Your task to perform on an android device: change keyboard looks Image 0: 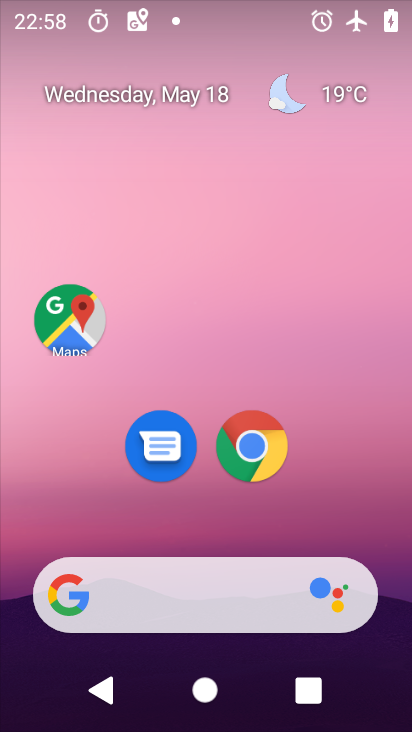
Step 0: press home button
Your task to perform on an android device: change keyboard looks Image 1: 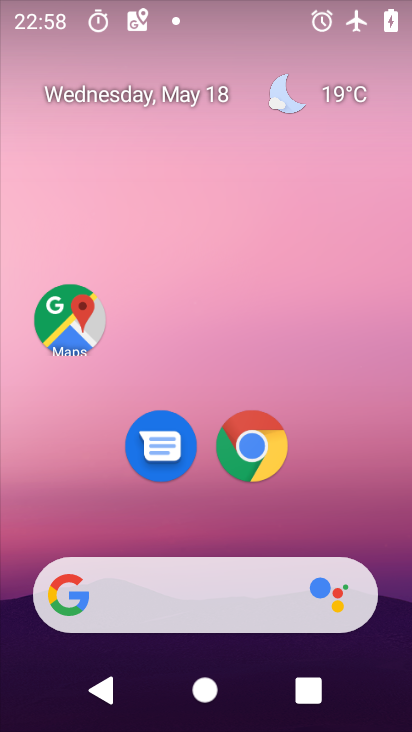
Step 1: drag from (176, 596) to (282, 97)
Your task to perform on an android device: change keyboard looks Image 2: 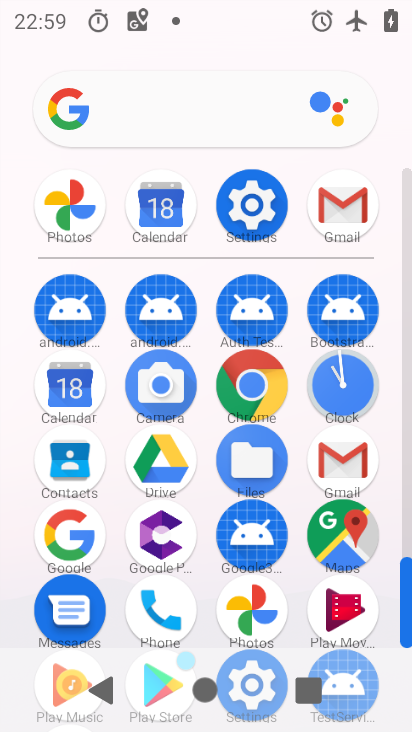
Step 2: click (239, 192)
Your task to perform on an android device: change keyboard looks Image 3: 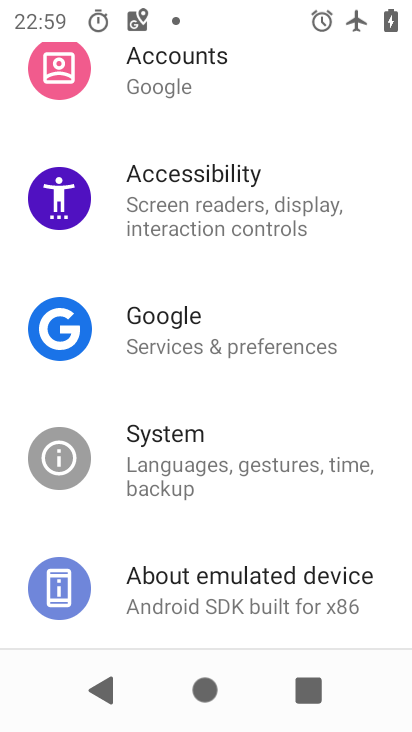
Step 3: click (159, 453)
Your task to perform on an android device: change keyboard looks Image 4: 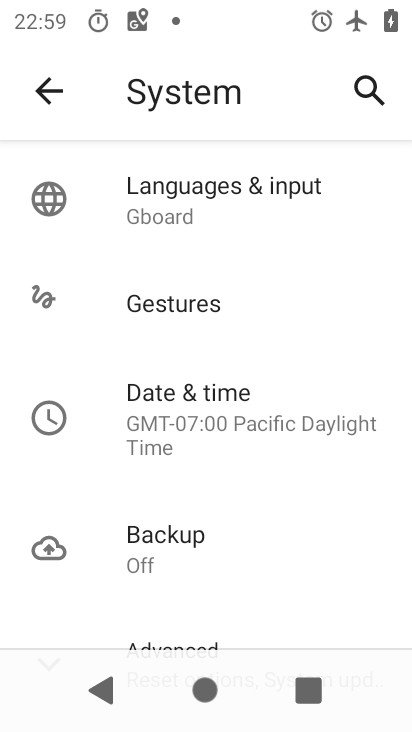
Step 4: click (194, 209)
Your task to perform on an android device: change keyboard looks Image 5: 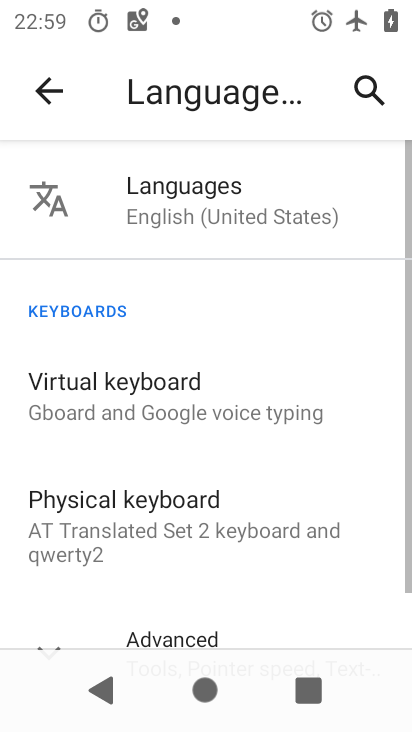
Step 5: click (146, 394)
Your task to perform on an android device: change keyboard looks Image 6: 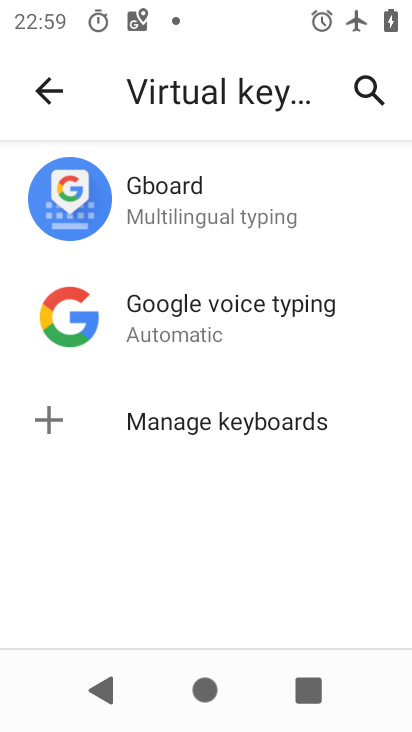
Step 6: click (191, 203)
Your task to perform on an android device: change keyboard looks Image 7: 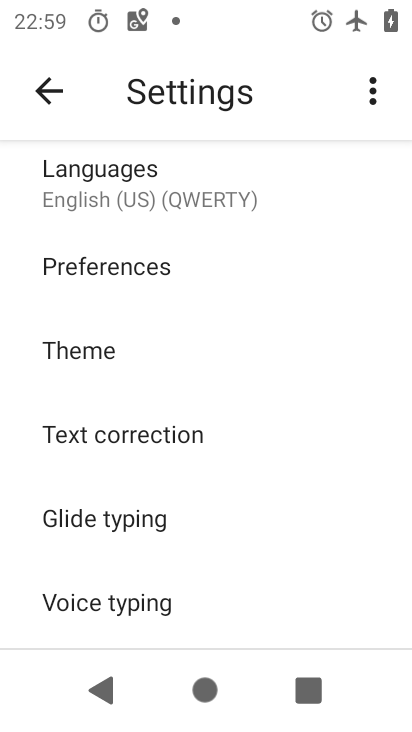
Step 7: click (98, 336)
Your task to perform on an android device: change keyboard looks Image 8: 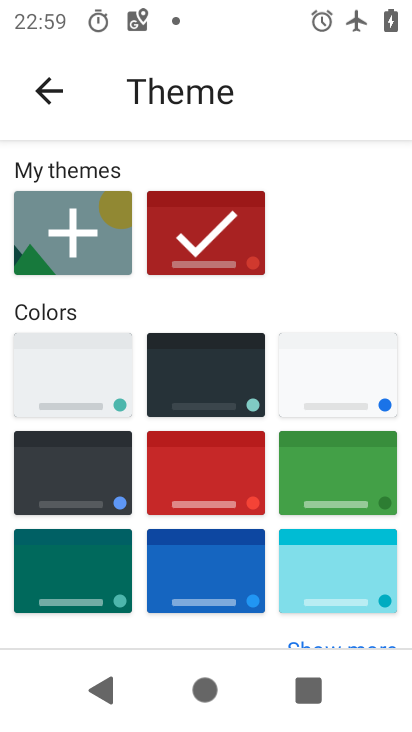
Step 8: click (314, 471)
Your task to perform on an android device: change keyboard looks Image 9: 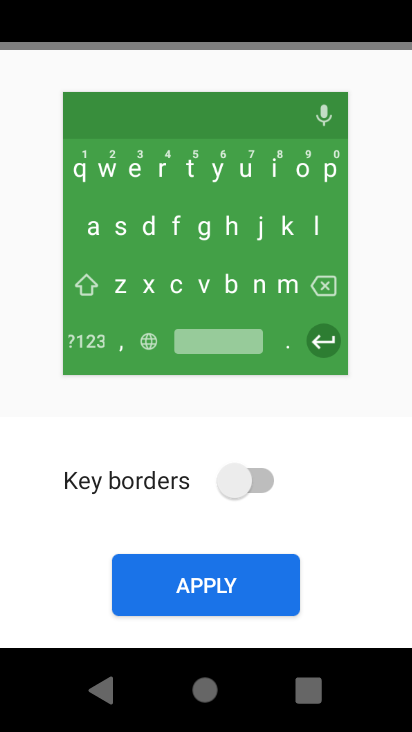
Step 9: click (231, 587)
Your task to perform on an android device: change keyboard looks Image 10: 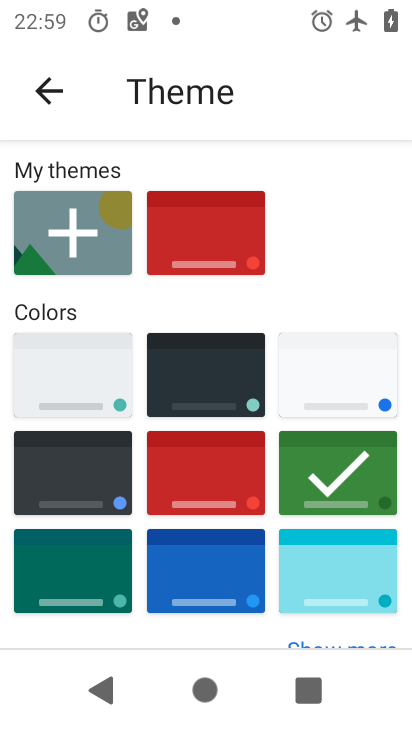
Step 10: task complete